Your task to perform on an android device: Go to eBay Image 0: 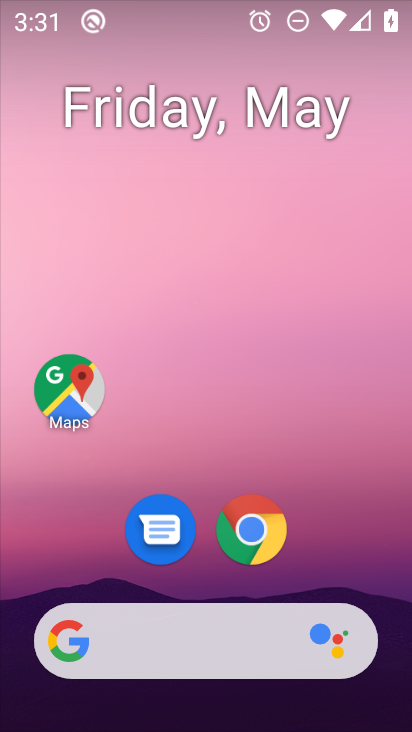
Step 0: click (248, 533)
Your task to perform on an android device: Go to eBay Image 1: 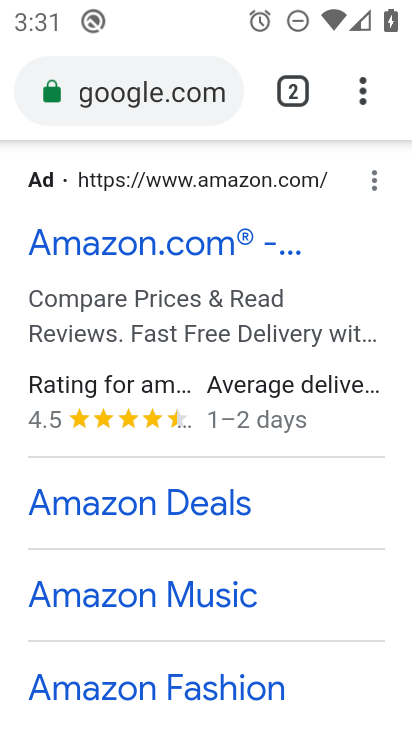
Step 1: click (229, 97)
Your task to perform on an android device: Go to eBay Image 2: 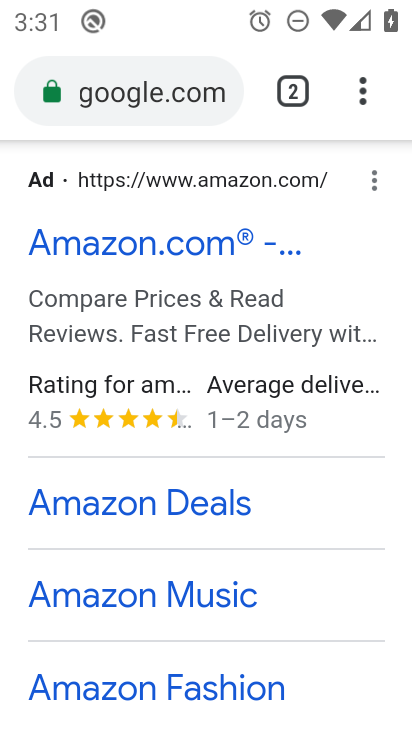
Step 2: click (219, 79)
Your task to perform on an android device: Go to eBay Image 3: 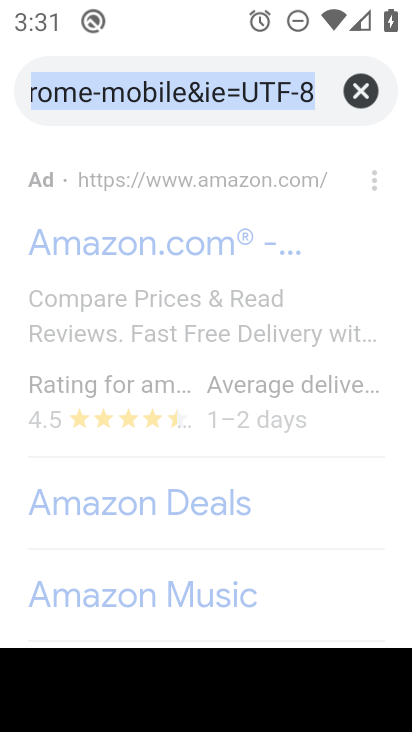
Step 3: click (369, 94)
Your task to perform on an android device: Go to eBay Image 4: 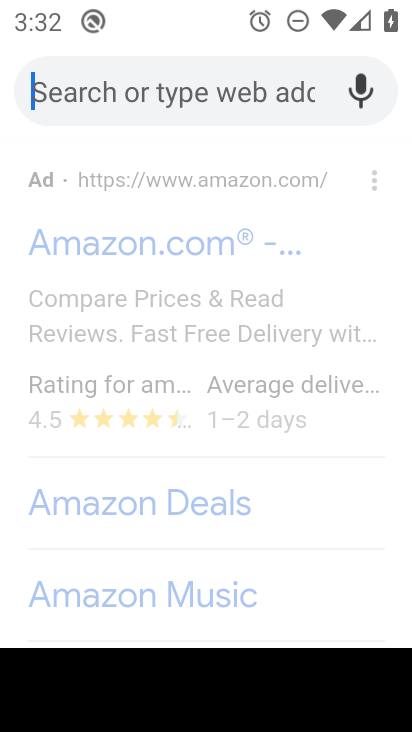
Step 4: type " eBay"
Your task to perform on an android device: Go to eBay Image 5: 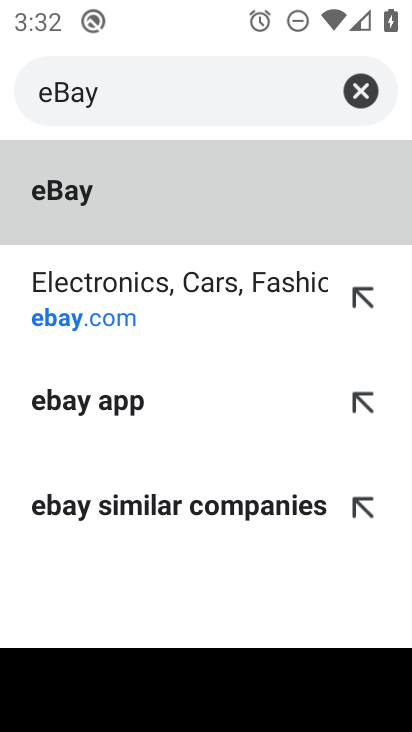
Step 5: click (77, 200)
Your task to perform on an android device: Go to eBay Image 6: 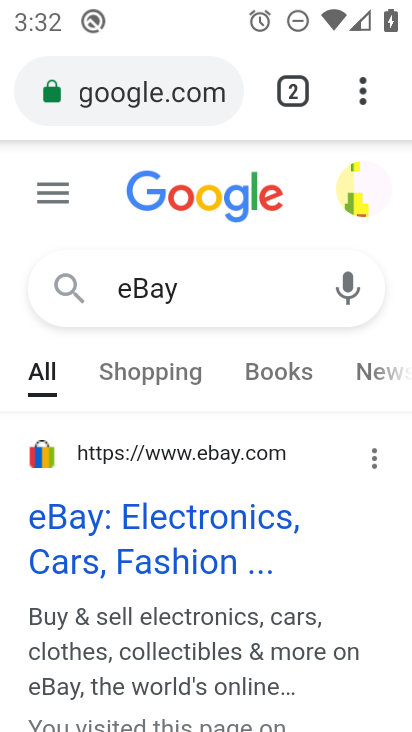
Step 6: task complete